Your task to perform on an android device: Go to location settings Image 0: 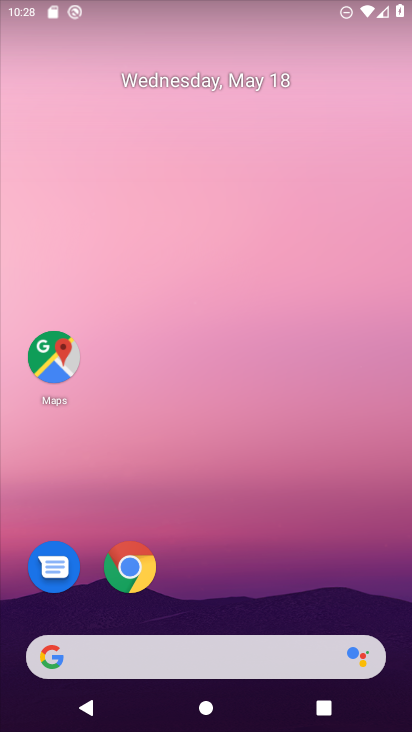
Step 0: drag from (228, 644) to (302, 159)
Your task to perform on an android device: Go to location settings Image 1: 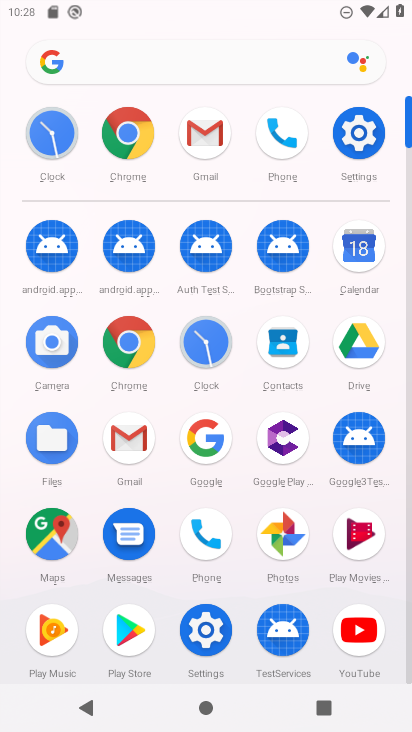
Step 1: click (362, 128)
Your task to perform on an android device: Go to location settings Image 2: 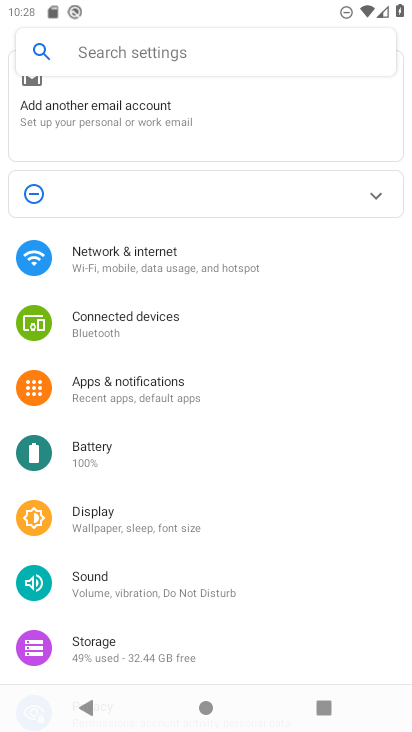
Step 2: click (190, 59)
Your task to perform on an android device: Go to location settings Image 3: 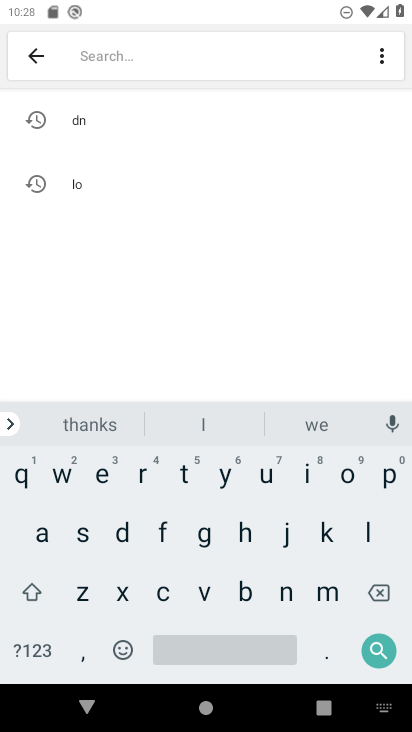
Step 3: click (83, 189)
Your task to perform on an android device: Go to location settings Image 4: 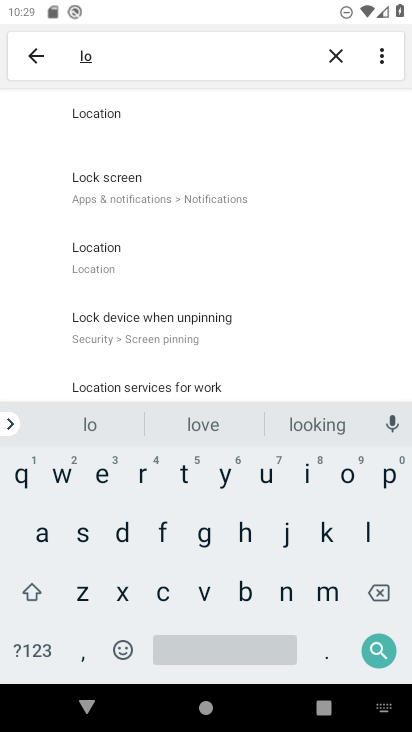
Step 4: click (108, 264)
Your task to perform on an android device: Go to location settings Image 5: 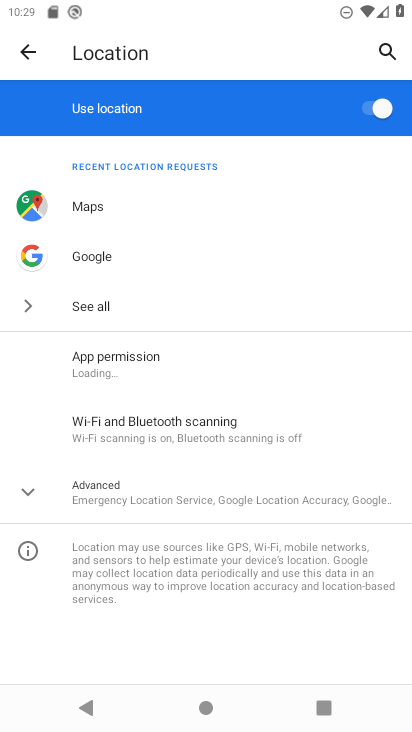
Step 5: task complete